Your task to perform on an android device: turn on translation in the chrome app Image 0: 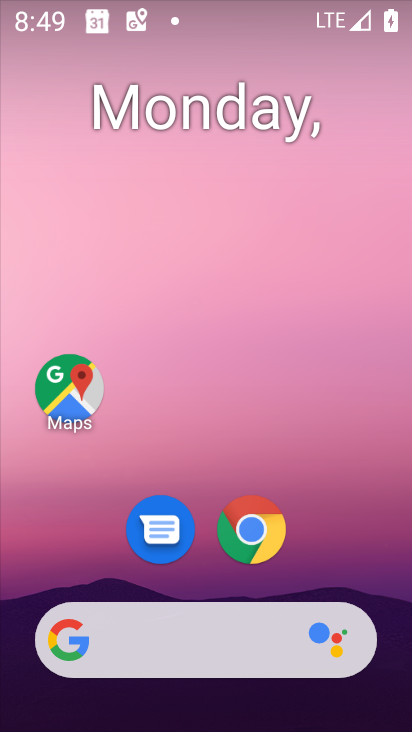
Step 0: click (259, 530)
Your task to perform on an android device: turn on translation in the chrome app Image 1: 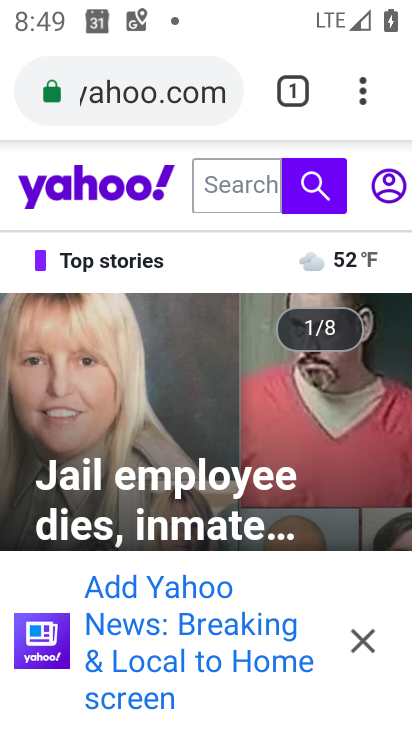
Step 1: click (366, 87)
Your task to perform on an android device: turn on translation in the chrome app Image 2: 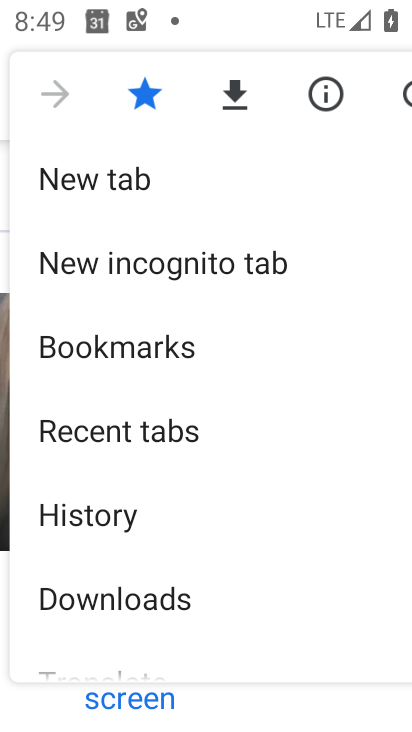
Step 2: drag from (150, 592) to (291, 161)
Your task to perform on an android device: turn on translation in the chrome app Image 3: 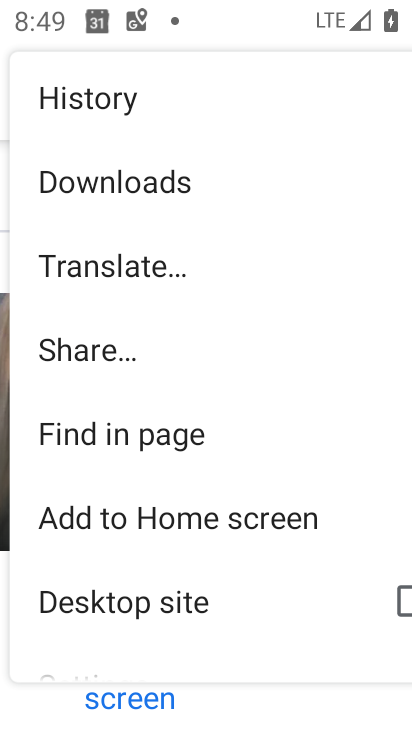
Step 3: drag from (117, 625) to (213, 314)
Your task to perform on an android device: turn on translation in the chrome app Image 4: 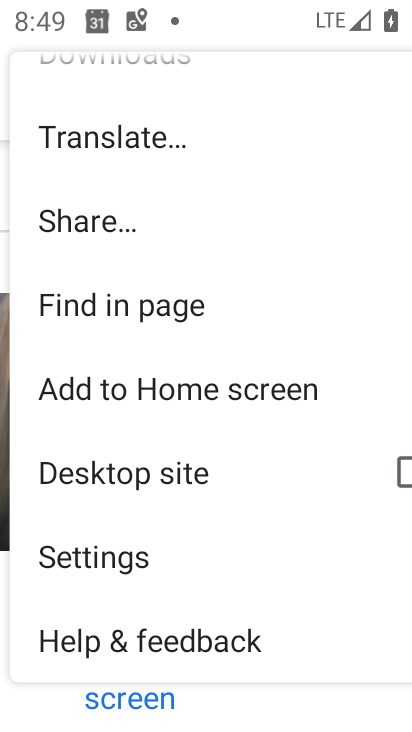
Step 4: click (98, 559)
Your task to perform on an android device: turn on translation in the chrome app Image 5: 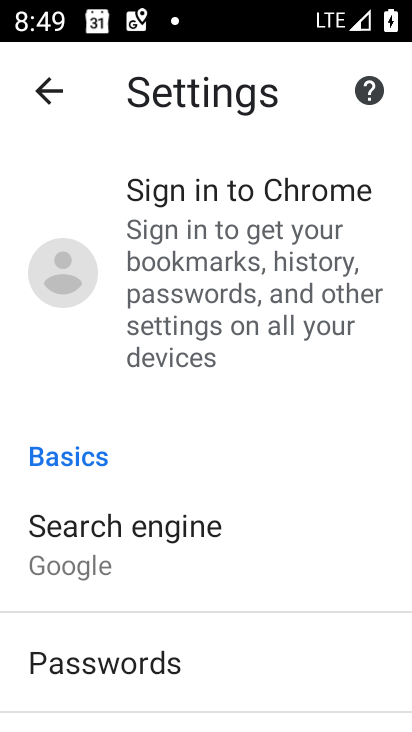
Step 5: drag from (173, 688) to (269, 278)
Your task to perform on an android device: turn on translation in the chrome app Image 6: 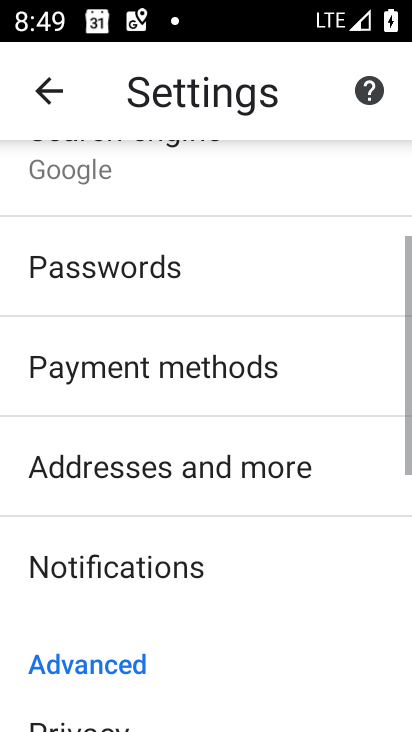
Step 6: drag from (244, 650) to (318, 282)
Your task to perform on an android device: turn on translation in the chrome app Image 7: 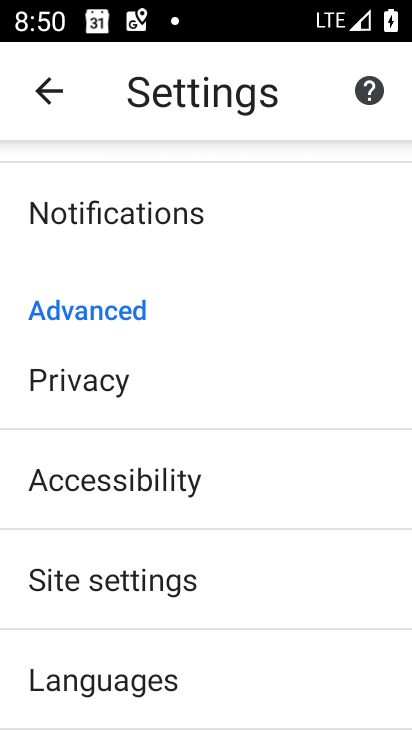
Step 7: click (146, 684)
Your task to perform on an android device: turn on translation in the chrome app Image 8: 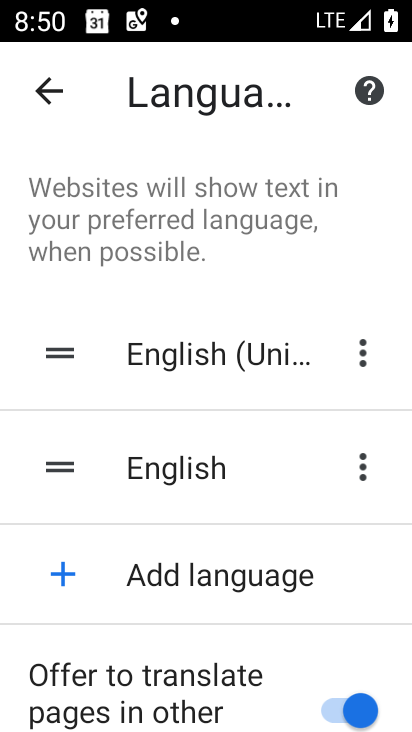
Step 8: task complete